Your task to perform on an android device: Open Google Chrome and open the bookmarks view Image 0: 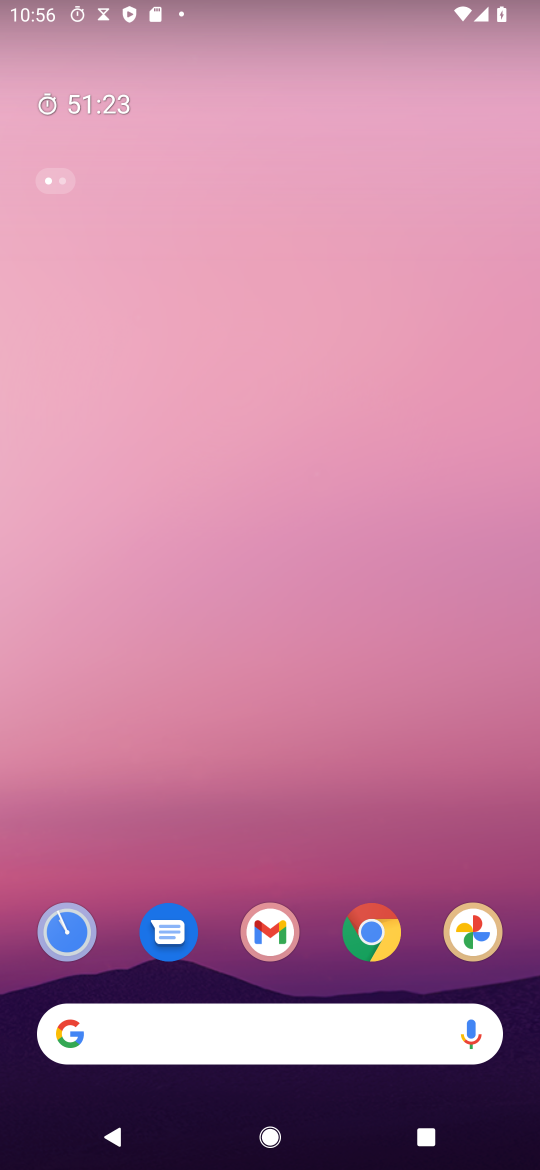
Step 0: drag from (359, 808) to (231, 0)
Your task to perform on an android device: Open Google Chrome and open the bookmarks view Image 1: 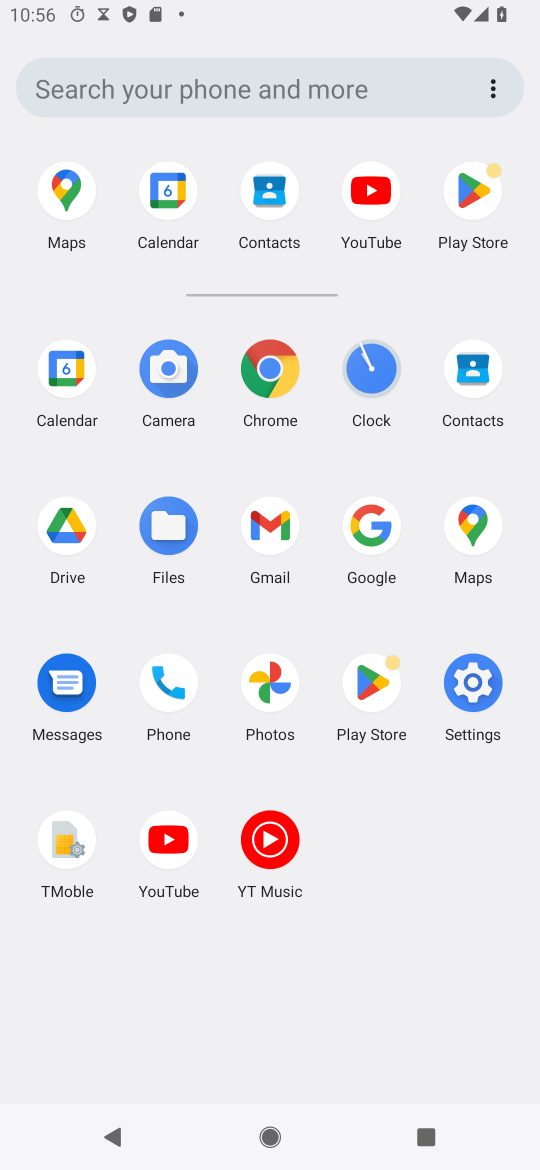
Step 1: click (270, 360)
Your task to perform on an android device: Open Google Chrome and open the bookmarks view Image 2: 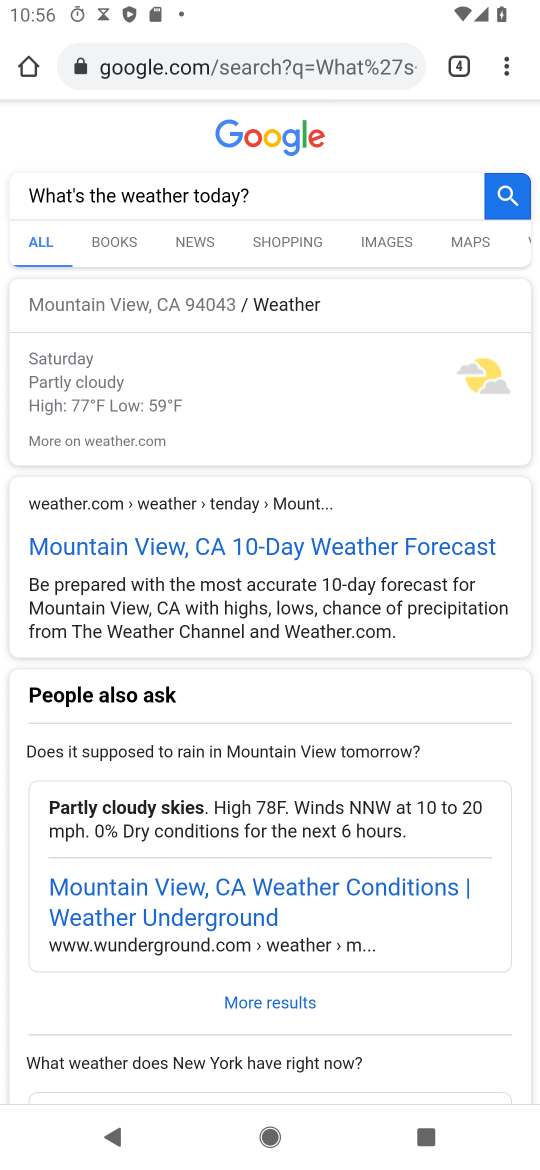
Step 2: click (507, 55)
Your task to perform on an android device: Open Google Chrome and open the bookmarks view Image 3: 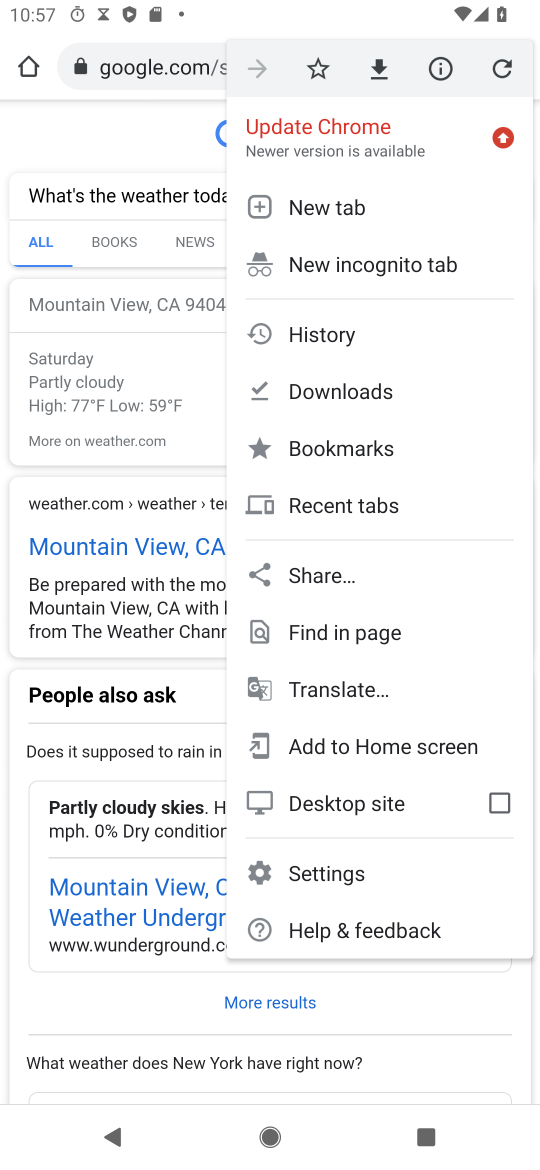
Step 3: click (369, 443)
Your task to perform on an android device: Open Google Chrome and open the bookmarks view Image 4: 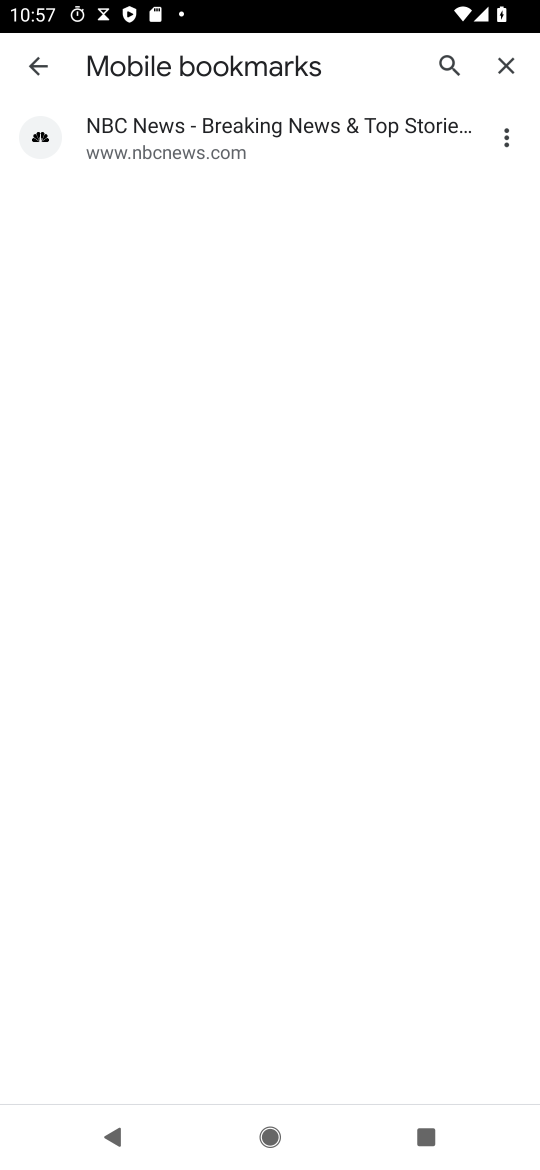
Step 4: click (302, 129)
Your task to perform on an android device: Open Google Chrome and open the bookmarks view Image 5: 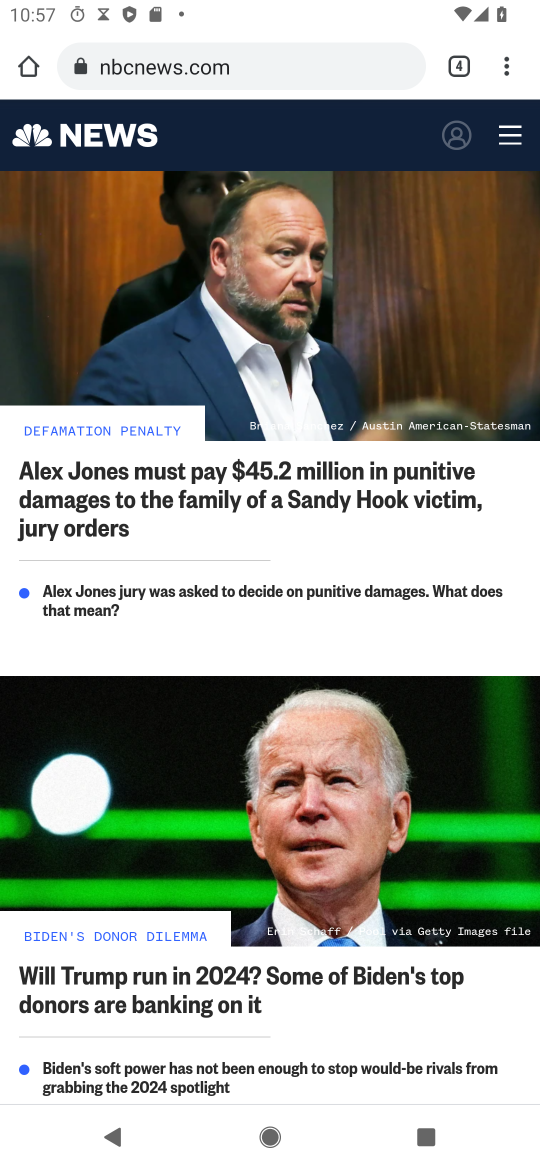
Step 5: task complete